Your task to perform on an android device: turn on the 24-hour format for clock Image 0: 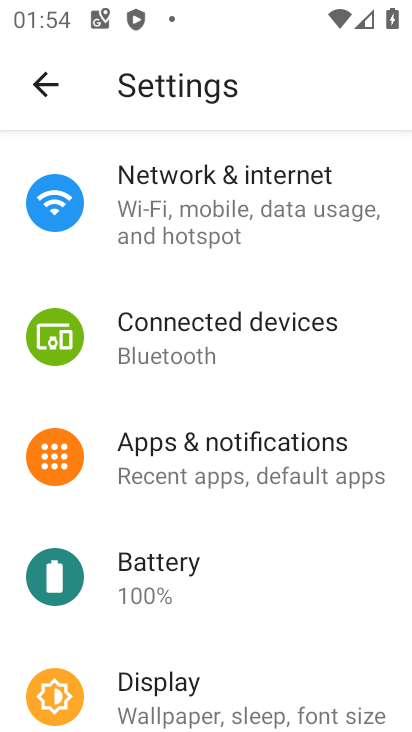
Step 0: press home button
Your task to perform on an android device: turn on the 24-hour format for clock Image 1: 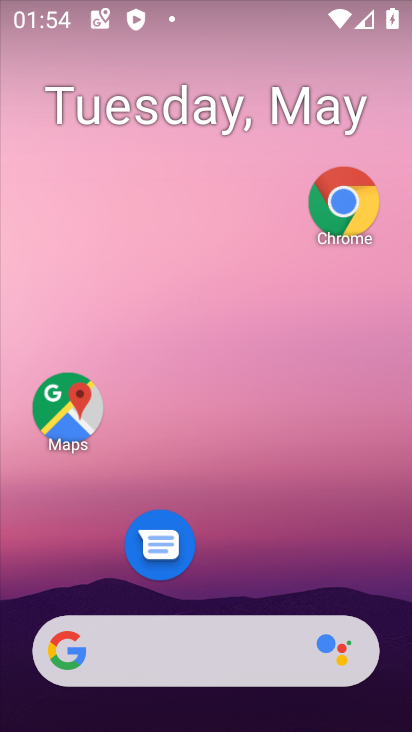
Step 1: drag from (227, 567) to (347, 68)
Your task to perform on an android device: turn on the 24-hour format for clock Image 2: 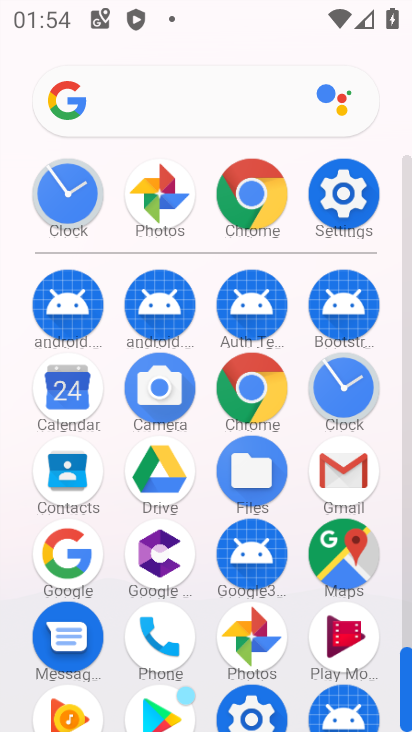
Step 2: click (348, 381)
Your task to perform on an android device: turn on the 24-hour format for clock Image 3: 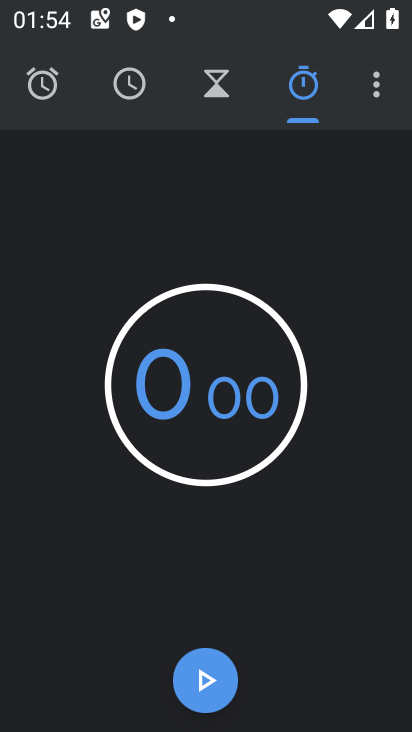
Step 3: click (381, 74)
Your task to perform on an android device: turn on the 24-hour format for clock Image 4: 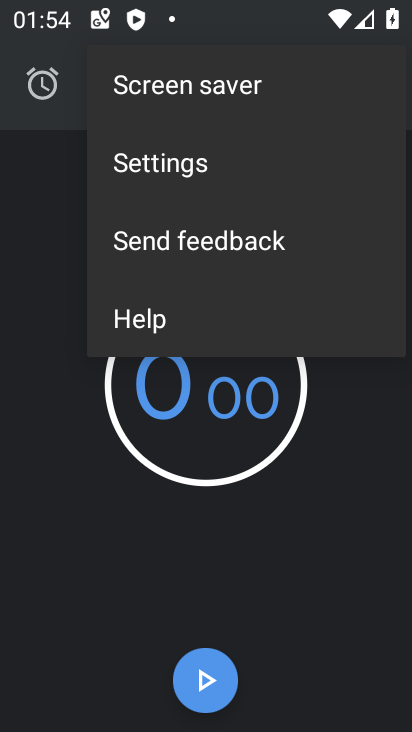
Step 4: click (381, 74)
Your task to perform on an android device: turn on the 24-hour format for clock Image 5: 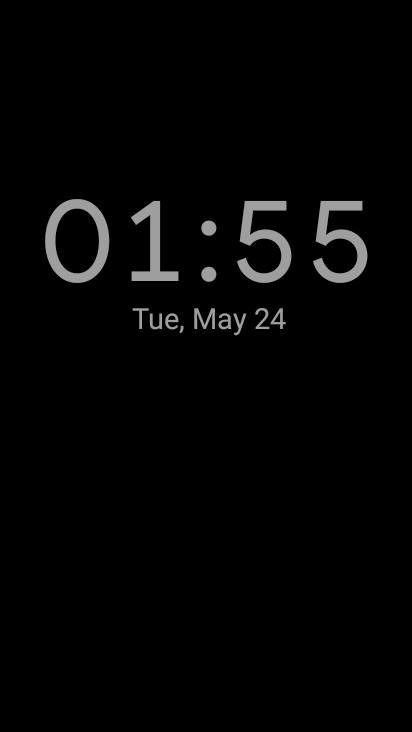
Step 5: click (220, 175)
Your task to perform on an android device: turn on the 24-hour format for clock Image 6: 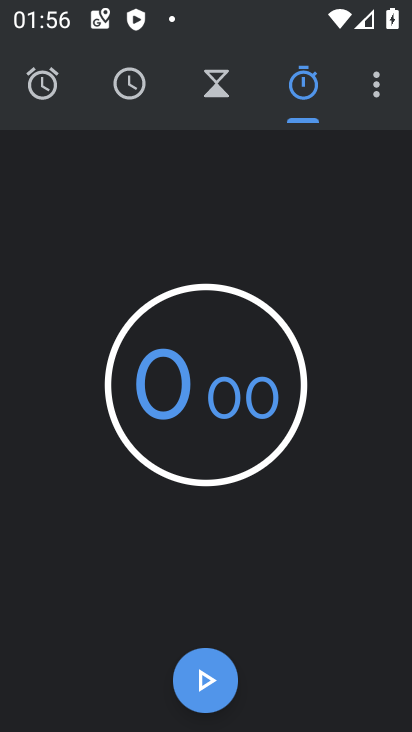
Step 6: click (382, 87)
Your task to perform on an android device: turn on the 24-hour format for clock Image 7: 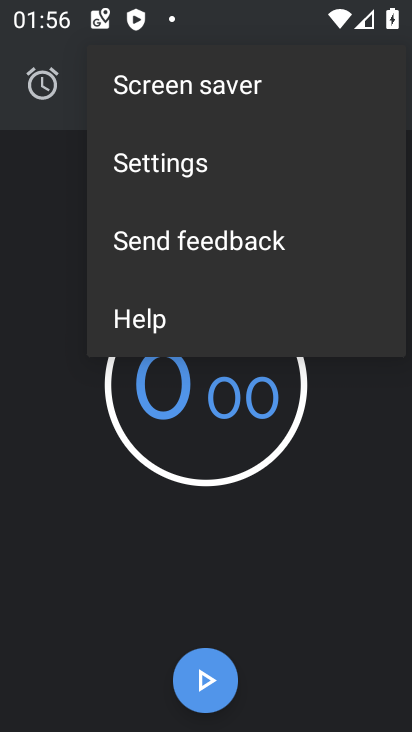
Step 7: click (228, 183)
Your task to perform on an android device: turn on the 24-hour format for clock Image 8: 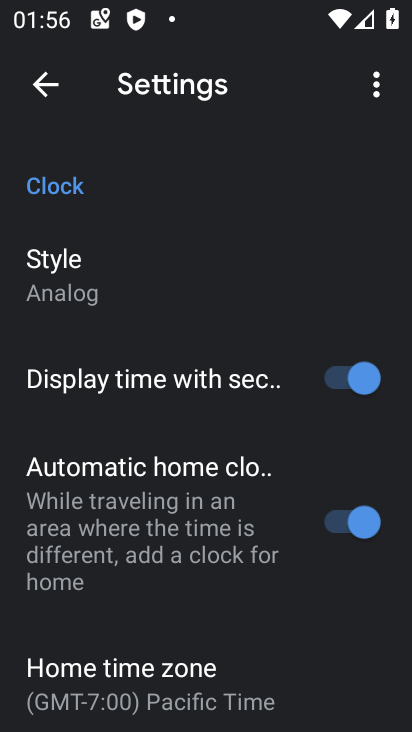
Step 8: drag from (126, 617) to (160, 196)
Your task to perform on an android device: turn on the 24-hour format for clock Image 9: 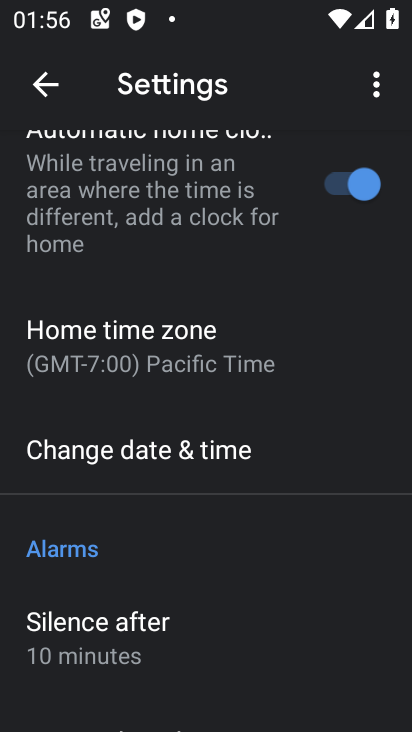
Step 9: click (139, 456)
Your task to perform on an android device: turn on the 24-hour format for clock Image 10: 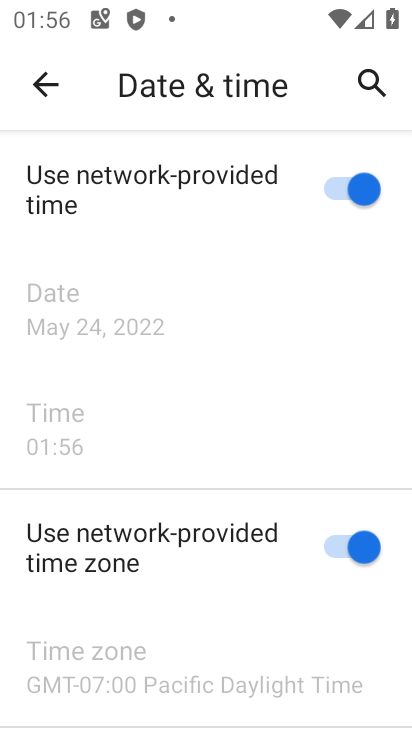
Step 10: task complete